Your task to perform on an android device: Go to network settings Image 0: 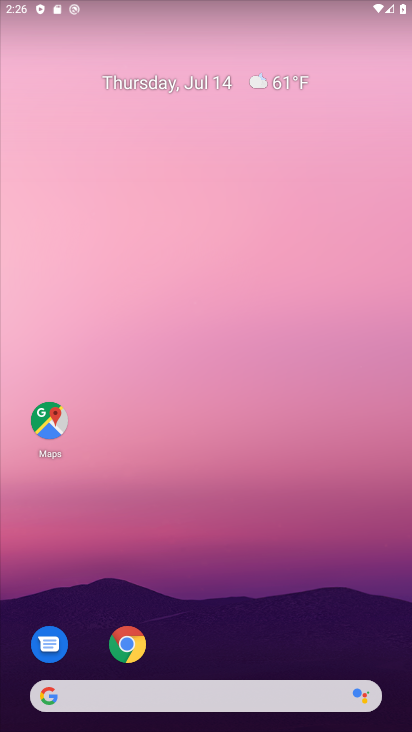
Step 0: drag from (371, 621) to (277, 0)
Your task to perform on an android device: Go to network settings Image 1: 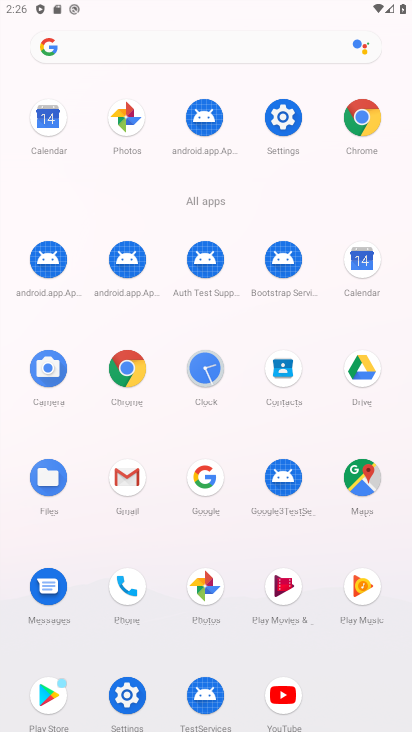
Step 1: click (284, 128)
Your task to perform on an android device: Go to network settings Image 2: 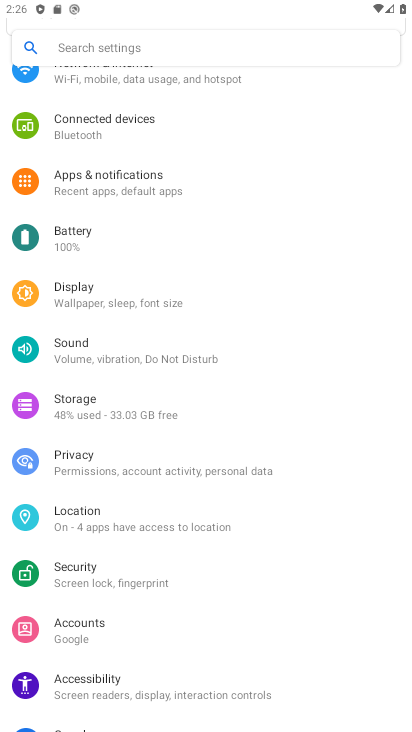
Step 2: click (65, 78)
Your task to perform on an android device: Go to network settings Image 3: 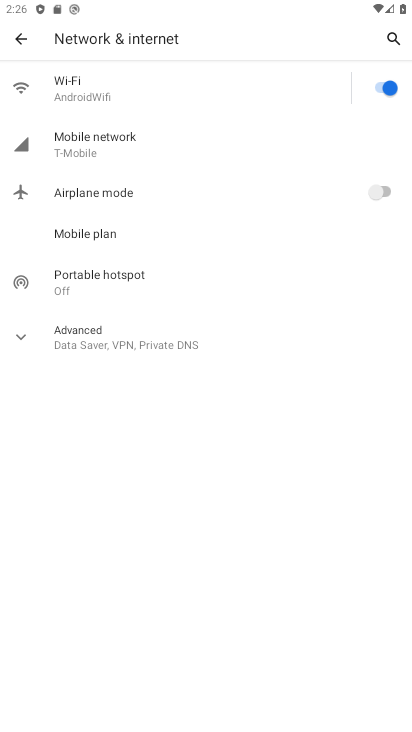
Step 3: task complete